Your task to perform on an android device: turn off notifications settings in the gmail app Image 0: 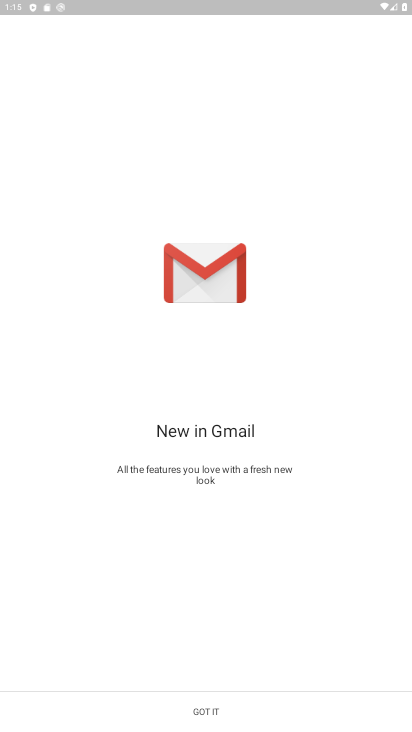
Step 0: click (204, 716)
Your task to perform on an android device: turn off notifications settings in the gmail app Image 1: 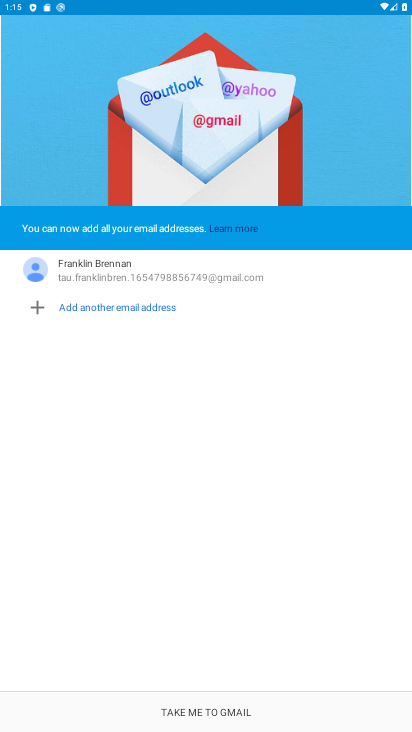
Step 1: click (189, 709)
Your task to perform on an android device: turn off notifications settings in the gmail app Image 2: 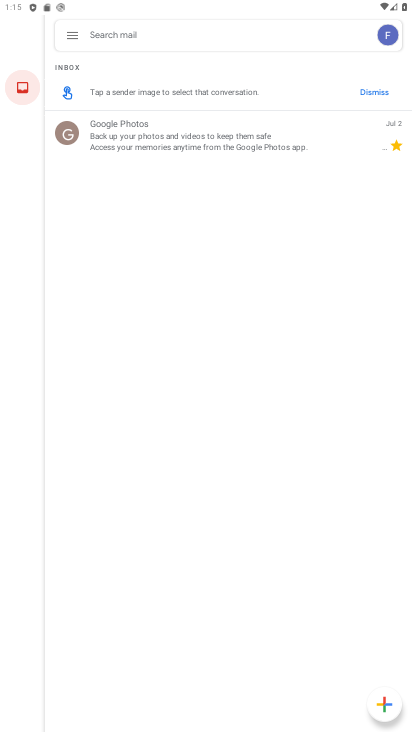
Step 2: click (66, 35)
Your task to perform on an android device: turn off notifications settings in the gmail app Image 3: 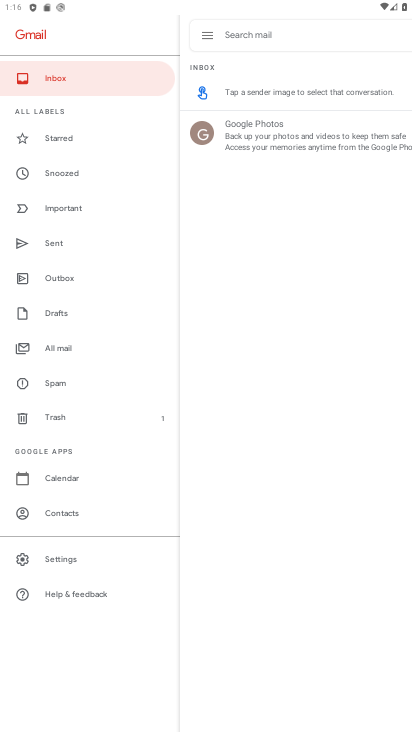
Step 3: click (74, 561)
Your task to perform on an android device: turn off notifications settings in the gmail app Image 4: 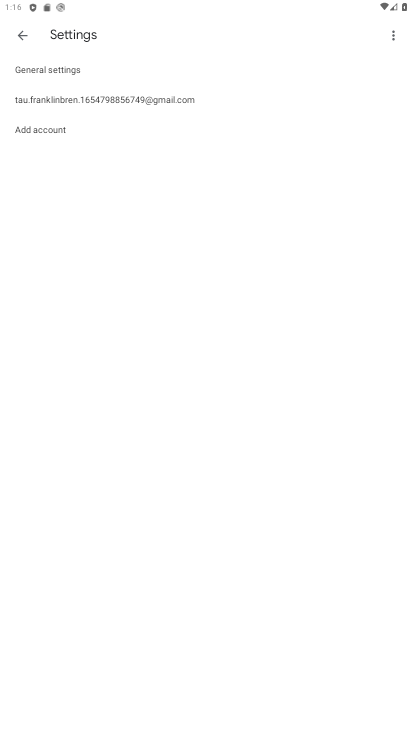
Step 4: click (144, 97)
Your task to perform on an android device: turn off notifications settings in the gmail app Image 5: 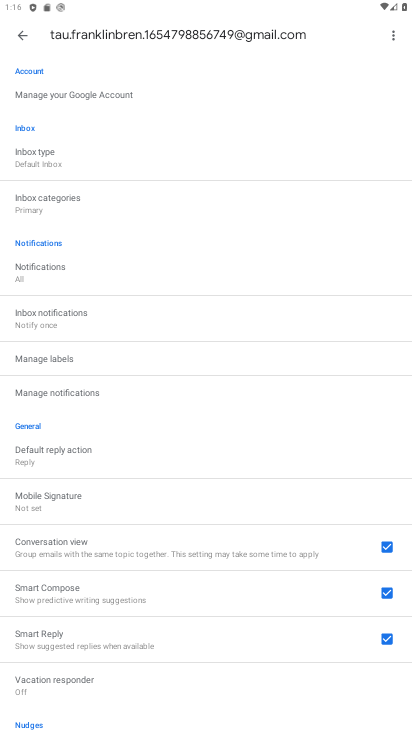
Step 5: click (95, 388)
Your task to perform on an android device: turn off notifications settings in the gmail app Image 6: 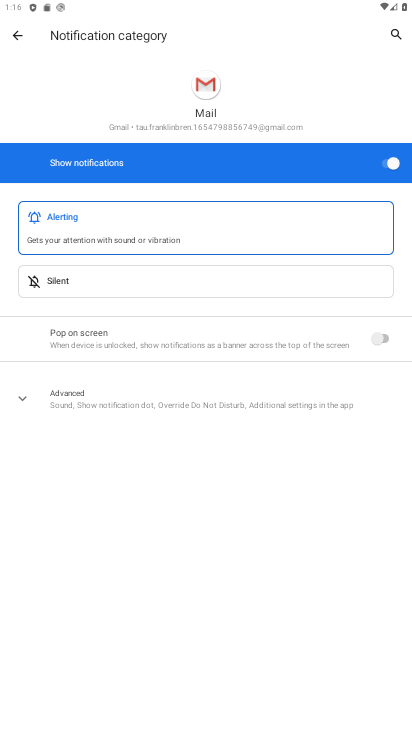
Step 6: click (393, 165)
Your task to perform on an android device: turn off notifications settings in the gmail app Image 7: 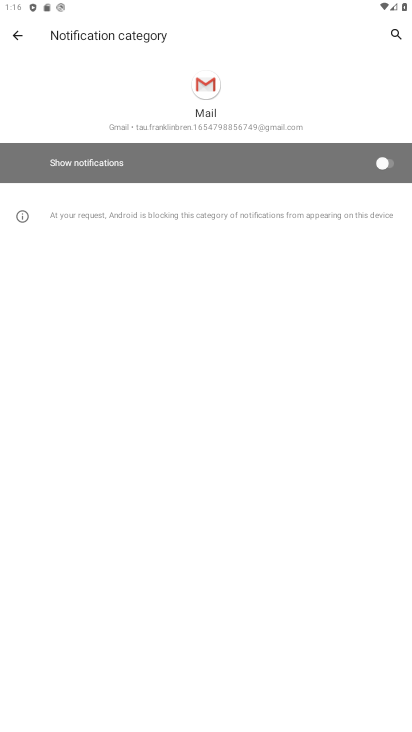
Step 7: task complete